Your task to perform on an android device: clear history in the chrome app Image 0: 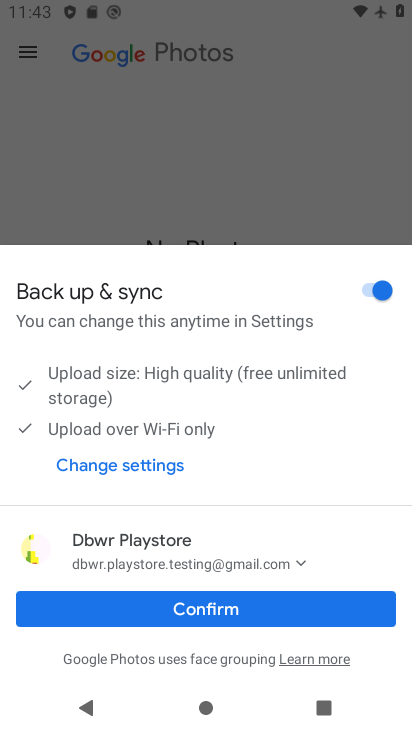
Step 0: press home button
Your task to perform on an android device: clear history in the chrome app Image 1: 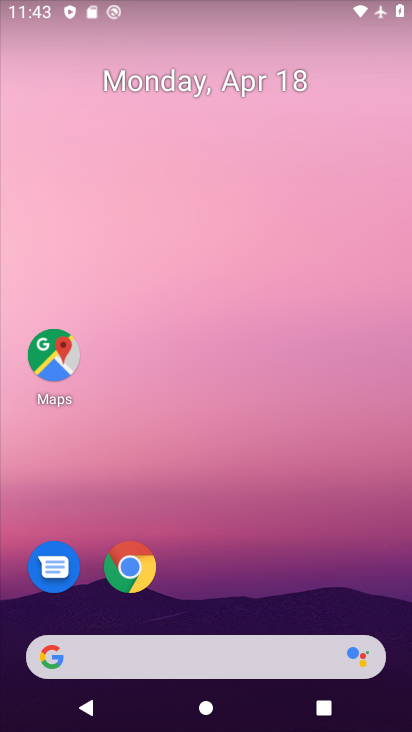
Step 1: click (130, 565)
Your task to perform on an android device: clear history in the chrome app Image 2: 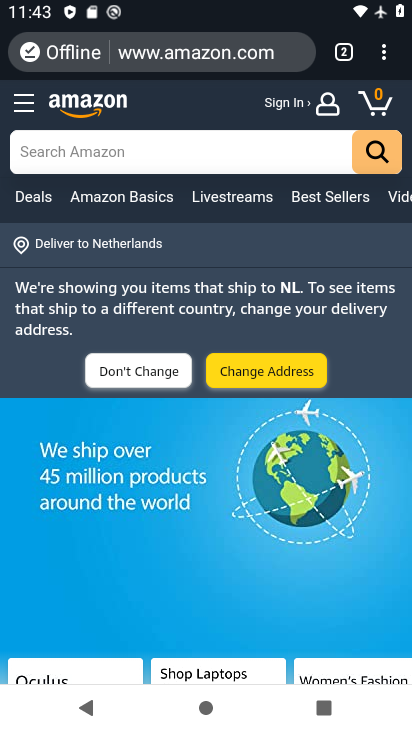
Step 2: click (380, 54)
Your task to perform on an android device: clear history in the chrome app Image 3: 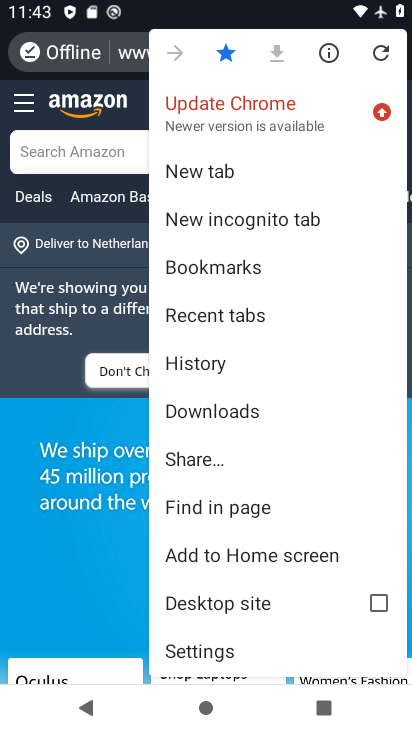
Step 3: click (201, 369)
Your task to perform on an android device: clear history in the chrome app Image 4: 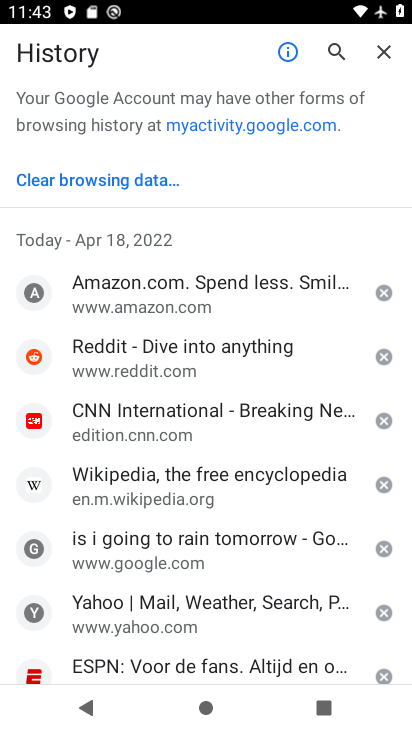
Step 4: click (69, 177)
Your task to perform on an android device: clear history in the chrome app Image 5: 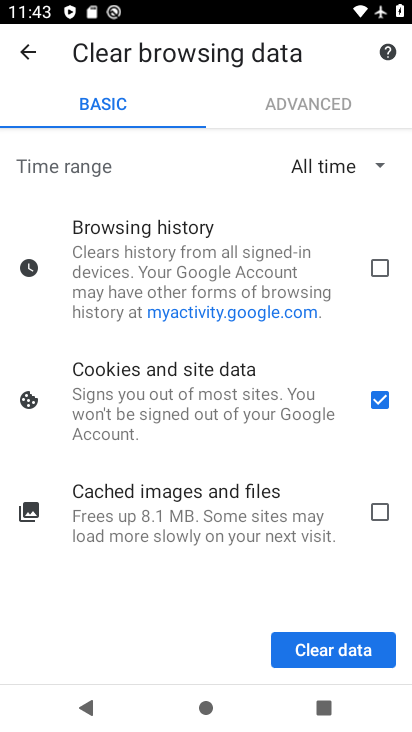
Step 5: click (384, 265)
Your task to perform on an android device: clear history in the chrome app Image 6: 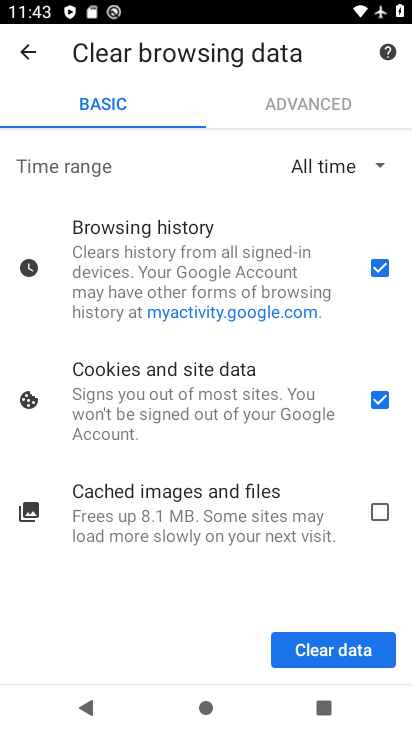
Step 6: click (384, 402)
Your task to perform on an android device: clear history in the chrome app Image 7: 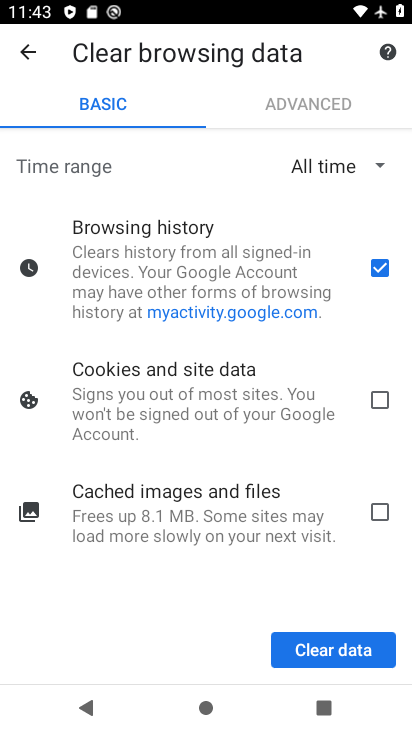
Step 7: click (346, 655)
Your task to perform on an android device: clear history in the chrome app Image 8: 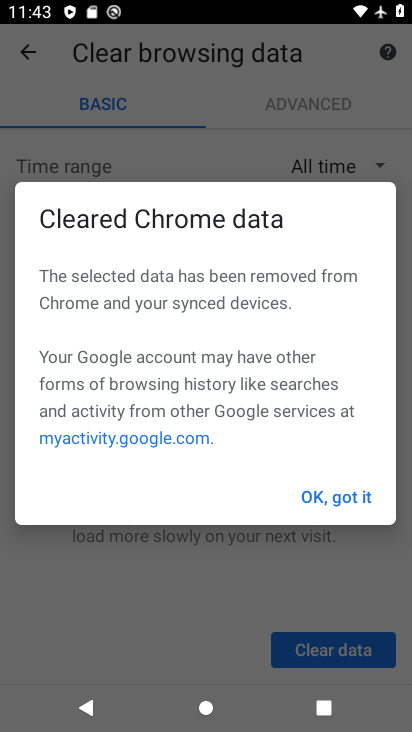
Step 8: click (331, 491)
Your task to perform on an android device: clear history in the chrome app Image 9: 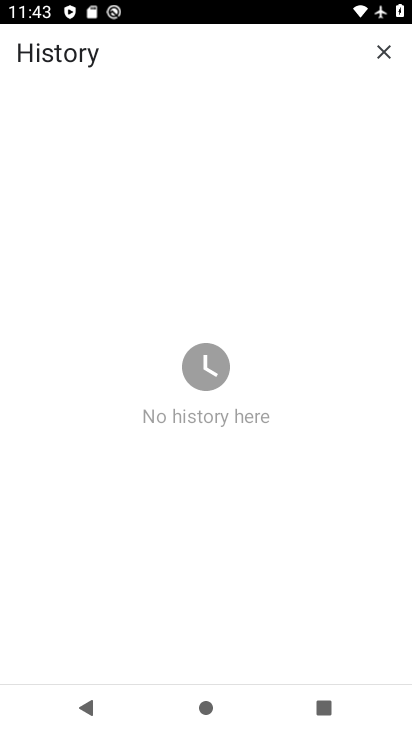
Step 9: task complete